Your task to perform on an android device: Go to Google Image 0: 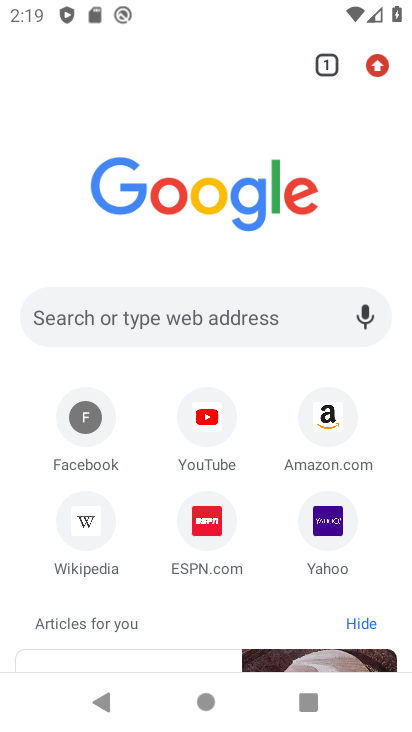
Step 0: press home button
Your task to perform on an android device: Go to Google Image 1: 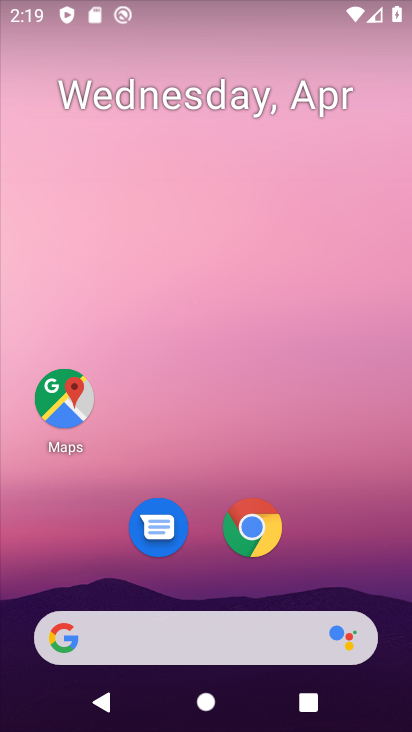
Step 1: drag from (338, 562) to (370, 81)
Your task to perform on an android device: Go to Google Image 2: 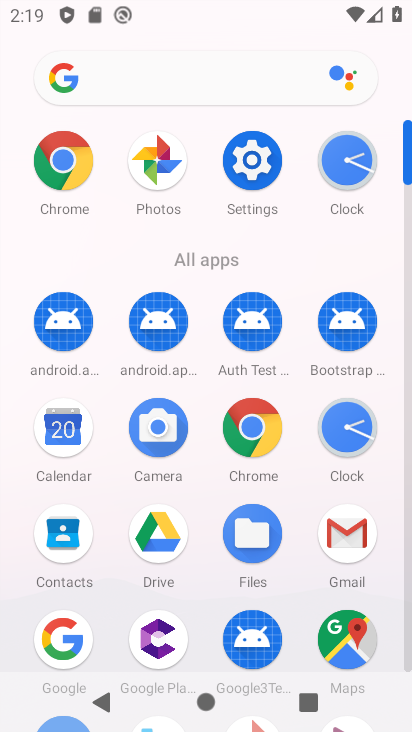
Step 2: click (57, 633)
Your task to perform on an android device: Go to Google Image 3: 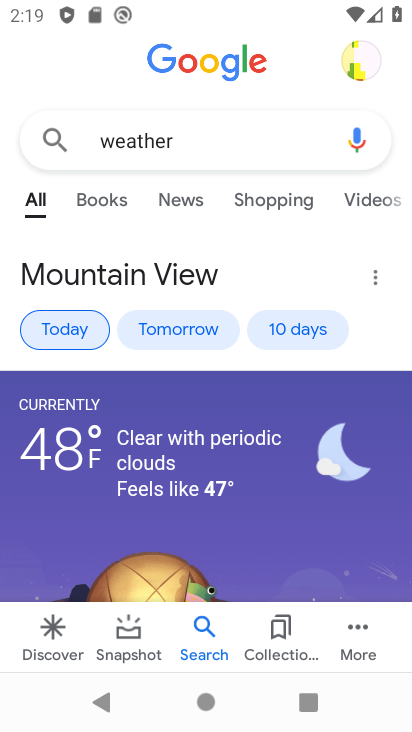
Step 3: task complete